Your task to perform on an android device: Search for pizza restaurants on Maps Image 0: 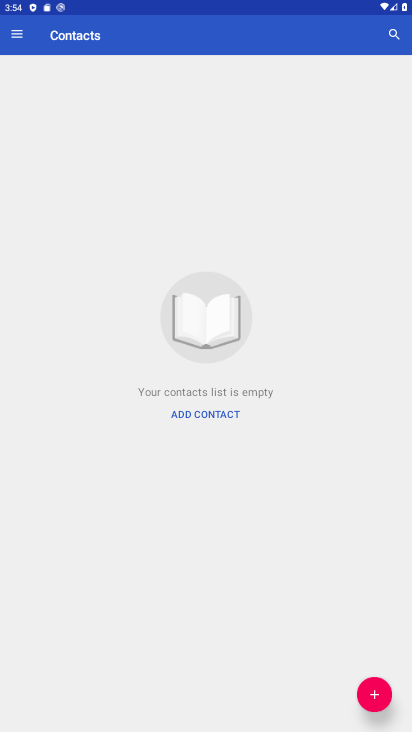
Step 0: press home button
Your task to perform on an android device: Search for pizza restaurants on Maps Image 1: 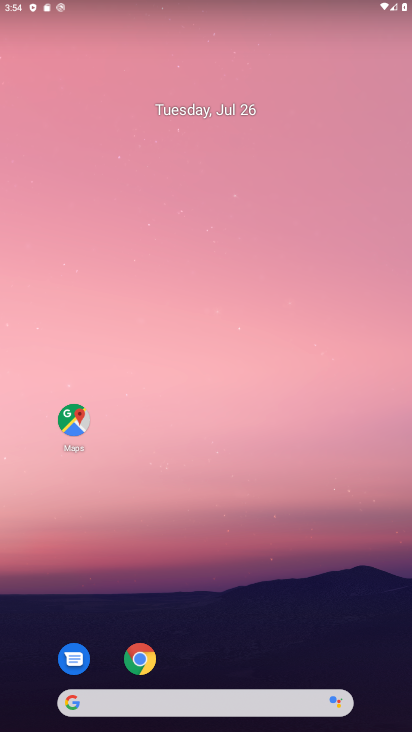
Step 1: drag from (242, 508) to (237, 221)
Your task to perform on an android device: Search for pizza restaurants on Maps Image 2: 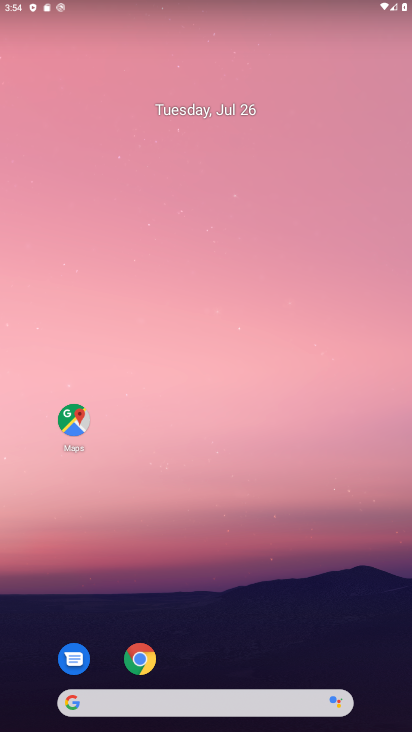
Step 2: drag from (241, 647) to (194, 147)
Your task to perform on an android device: Search for pizza restaurants on Maps Image 3: 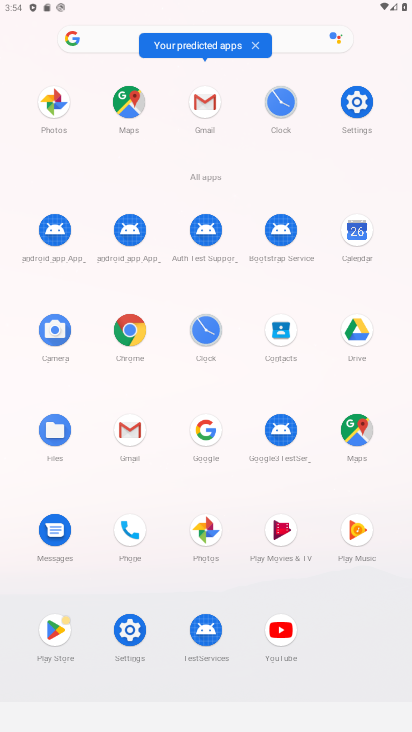
Step 3: click (131, 120)
Your task to perform on an android device: Search for pizza restaurants on Maps Image 4: 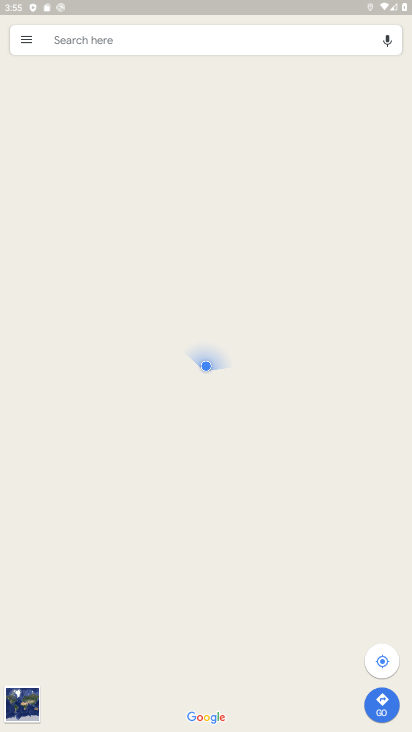
Step 4: click (119, 39)
Your task to perform on an android device: Search for pizza restaurants on Maps Image 5: 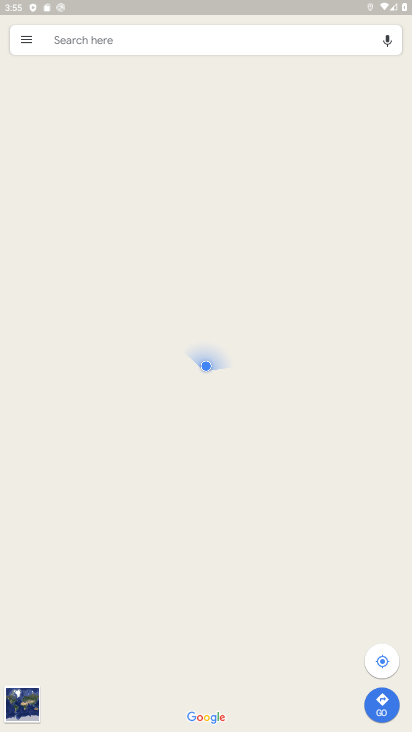
Step 5: click (125, 41)
Your task to perform on an android device: Search for pizza restaurants on Maps Image 6: 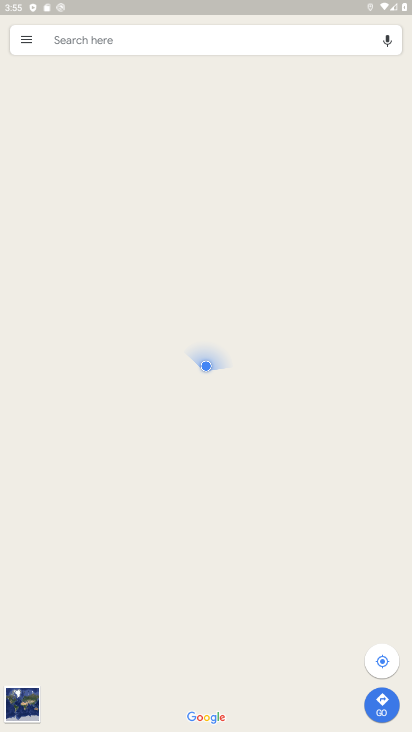
Step 6: click (111, 51)
Your task to perform on an android device: Search for pizza restaurants on Maps Image 7: 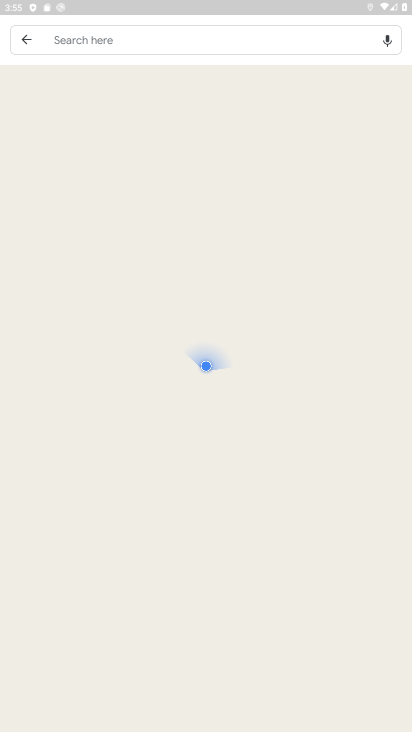
Step 7: click (116, 36)
Your task to perform on an android device: Search for pizza restaurants on Maps Image 8: 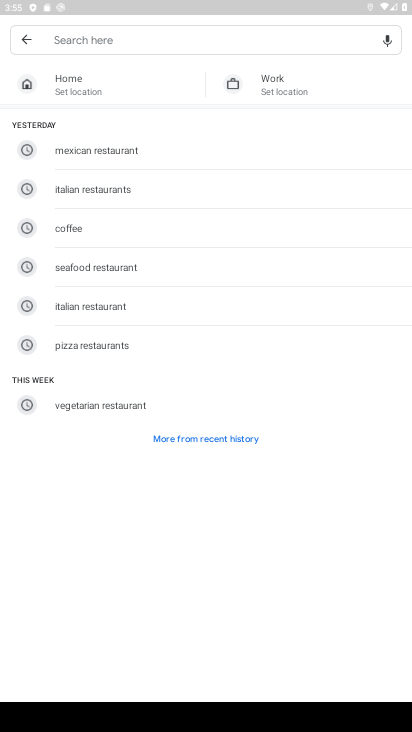
Step 8: click (97, 343)
Your task to perform on an android device: Search for pizza restaurants on Maps Image 9: 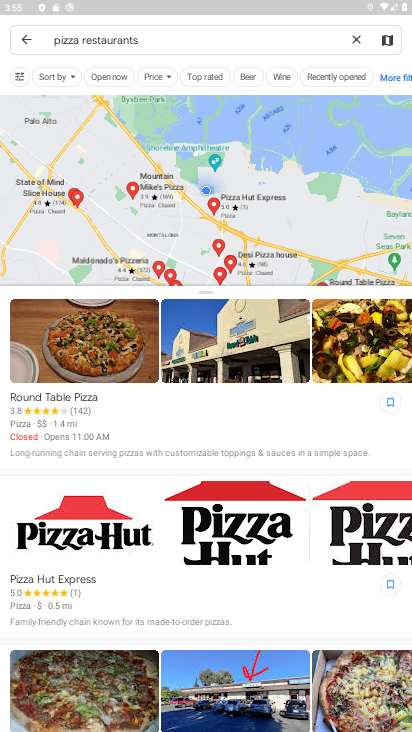
Step 9: task complete